Your task to perform on an android device: Go to Yahoo.com Image 0: 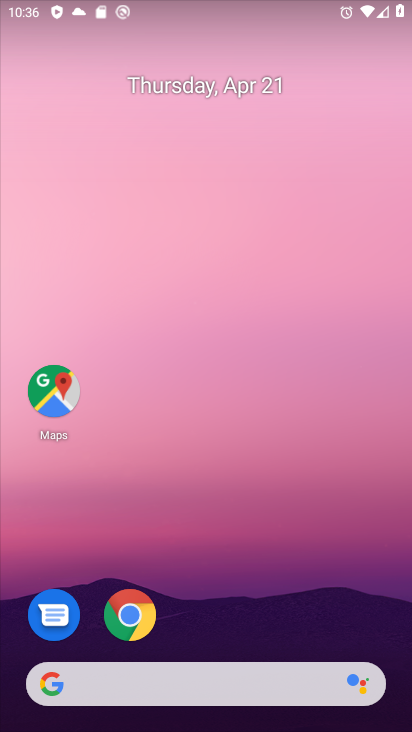
Step 0: drag from (210, 623) to (278, 114)
Your task to perform on an android device: Go to Yahoo.com Image 1: 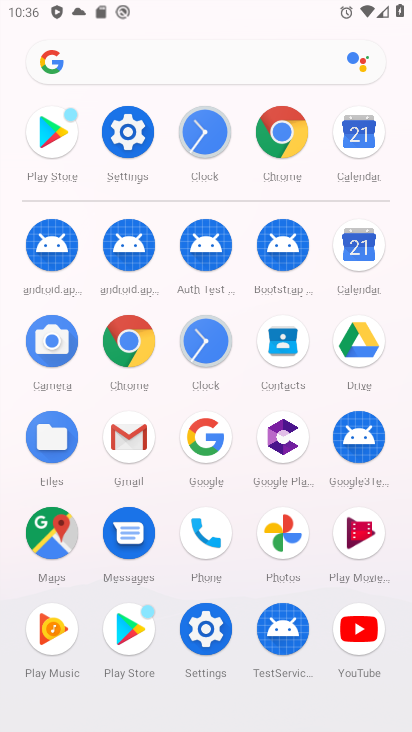
Step 1: click (127, 333)
Your task to perform on an android device: Go to Yahoo.com Image 2: 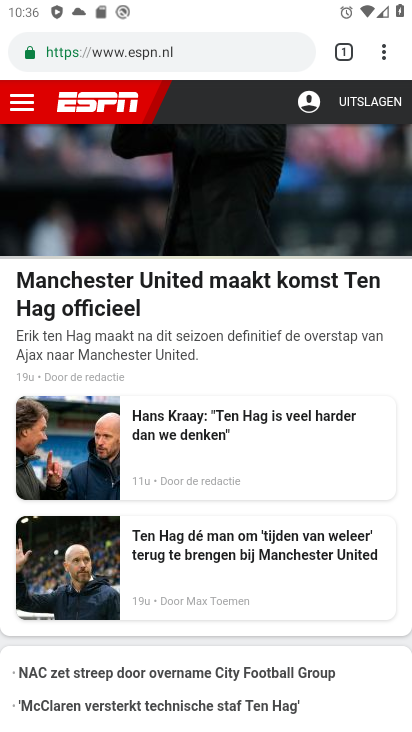
Step 2: click (339, 45)
Your task to perform on an android device: Go to Yahoo.com Image 3: 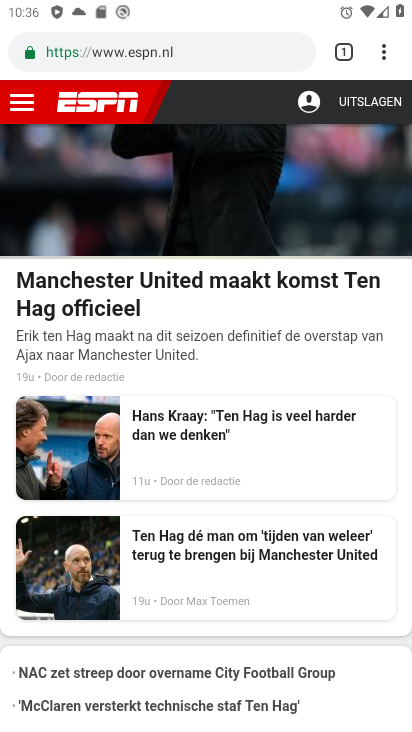
Step 3: click (337, 44)
Your task to perform on an android device: Go to Yahoo.com Image 4: 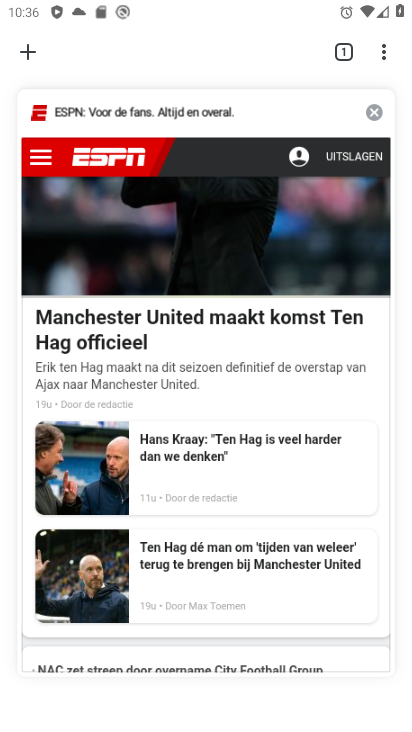
Step 4: click (31, 50)
Your task to perform on an android device: Go to Yahoo.com Image 5: 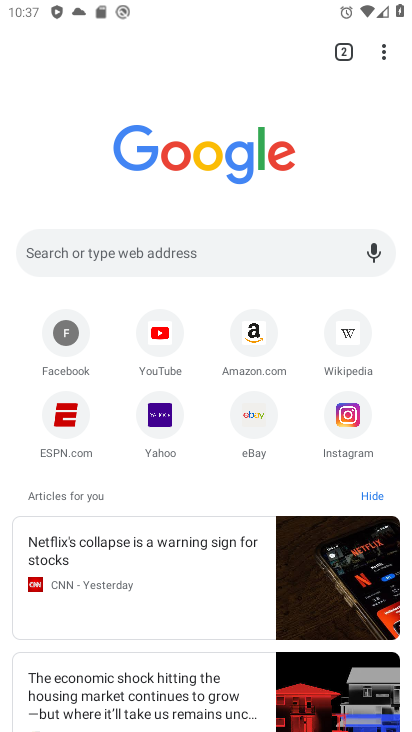
Step 5: click (157, 414)
Your task to perform on an android device: Go to Yahoo.com Image 6: 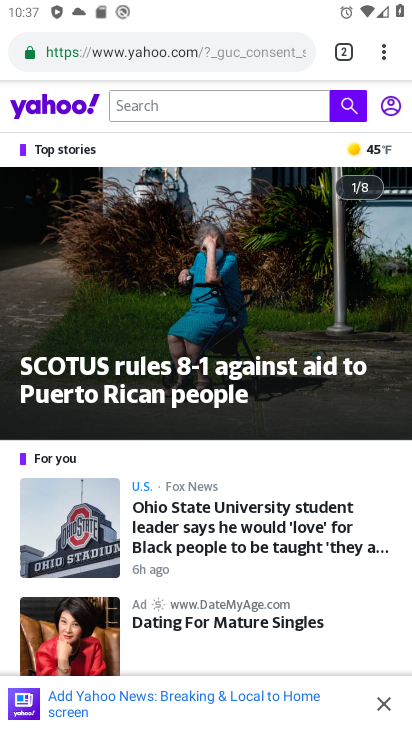
Step 6: task complete